Your task to perform on an android device: change notifications settings Image 0: 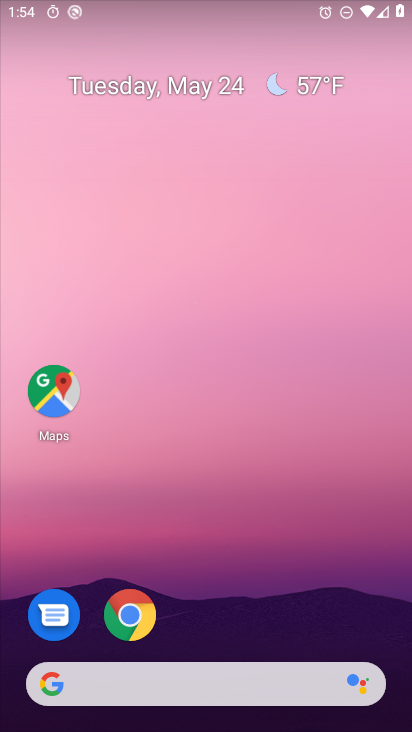
Step 0: drag from (216, 562) to (216, 301)
Your task to perform on an android device: change notifications settings Image 1: 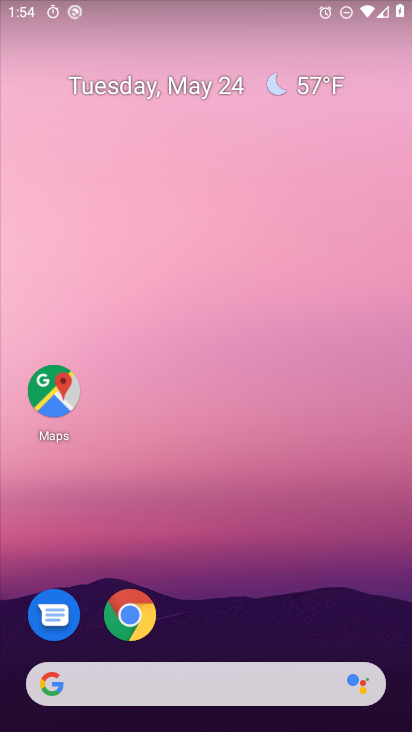
Step 1: drag from (215, 655) to (190, 233)
Your task to perform on an android device: change notifications settings Image 2: 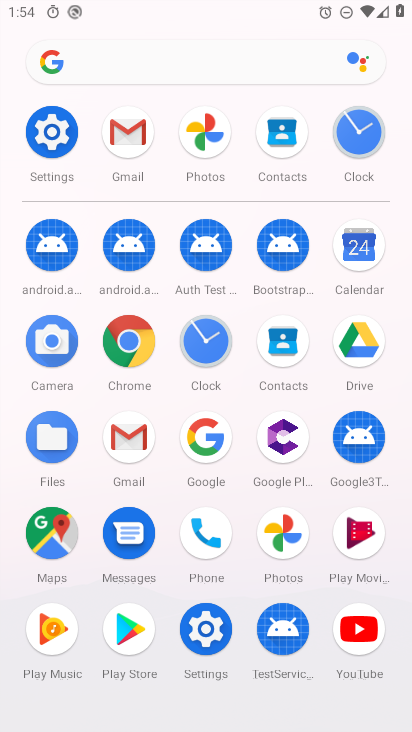
Step 2: click (47, 144)
Your task to perform on an android device: change notifications settings Image 3: 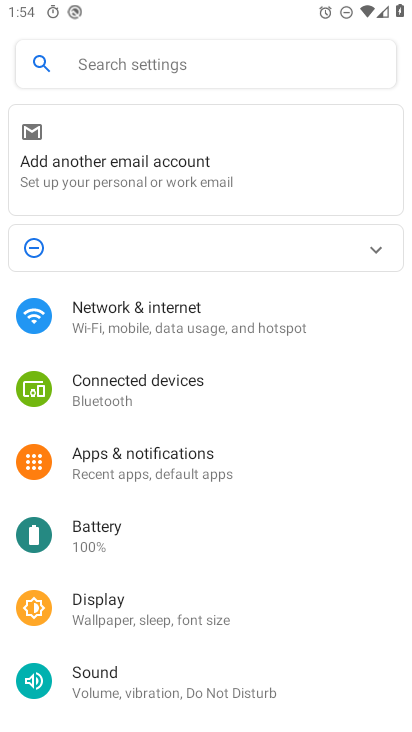
Step 3: click (123, 464)
Your task to perform on an android device: change notifications settings Image 4: 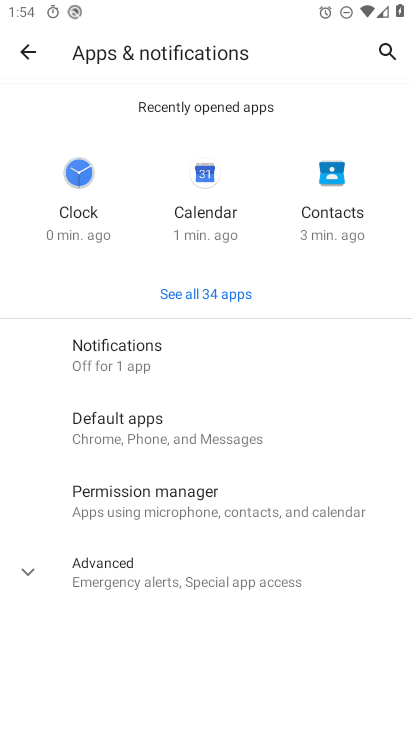
Step 4: click (116, 574)
Your task to perform on an android device: change notifications settings Image 5: 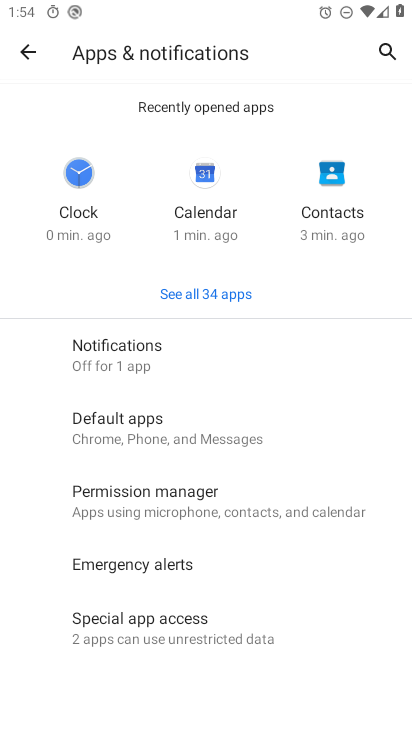
Step 5: task complete